Your task to perform on an android device: Go to settings Image 0: 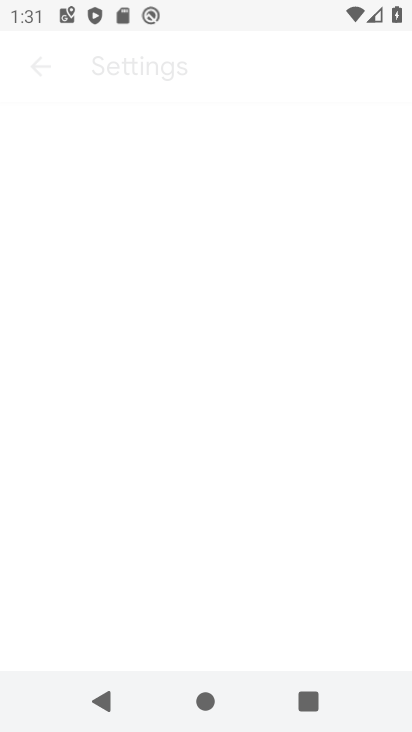
Step 0: drag from (167, 639) to (234, 212)
Your task to perform on an android device: Go to settings Image 1: 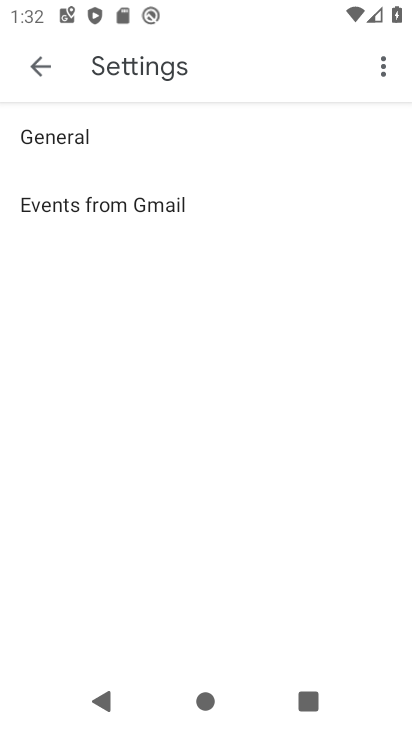
Step 1: press home button
Your task to perform on an android device: Go to settings Image 2: 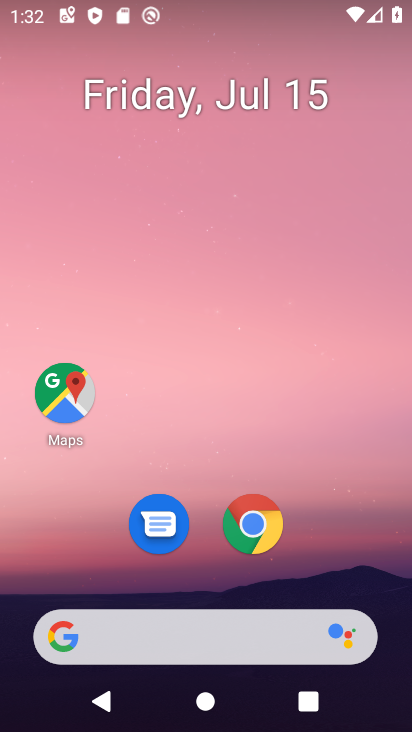
Step 2: drag from (256, 318) to (296, 139)
Your task to perform on an android device: Go to settings Image 3: 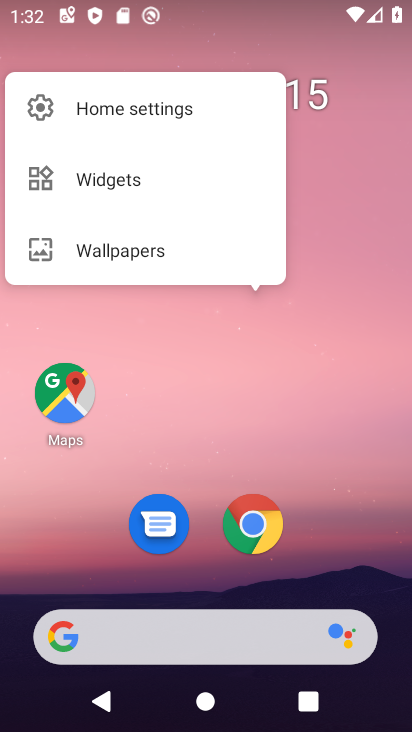
Step 3: drag from (241, 632) to (397, 63)
Your task to perform on an android device: Go to settings Image 4: 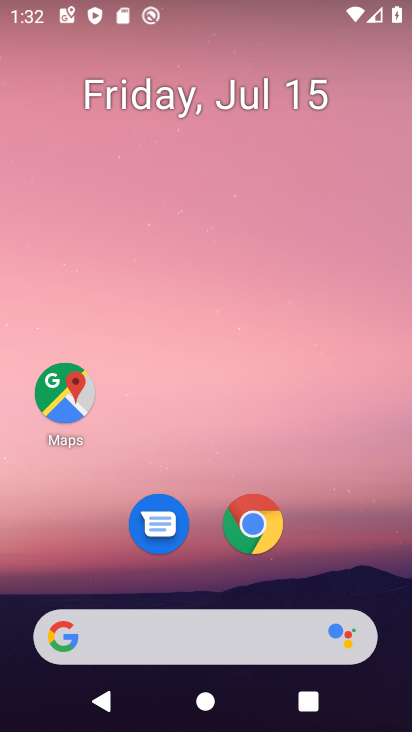
Step 4: drag from (193, 630) to (274, 146)
Your task to perform on an android device: Go to settings Image 5: 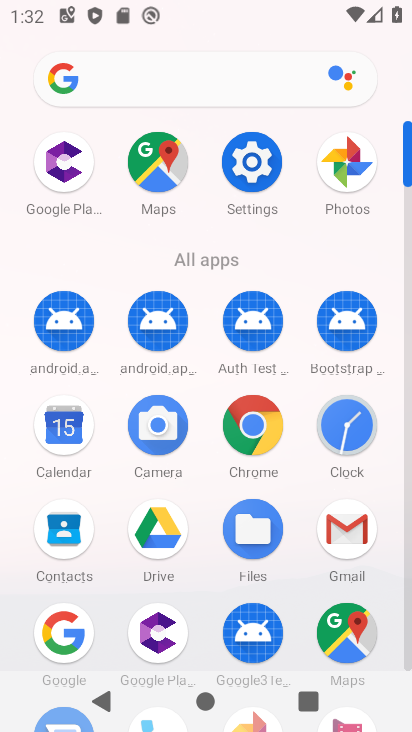
Step 5: click (259, 167)
Your task to perform on an android device: Go to settings Image 6: 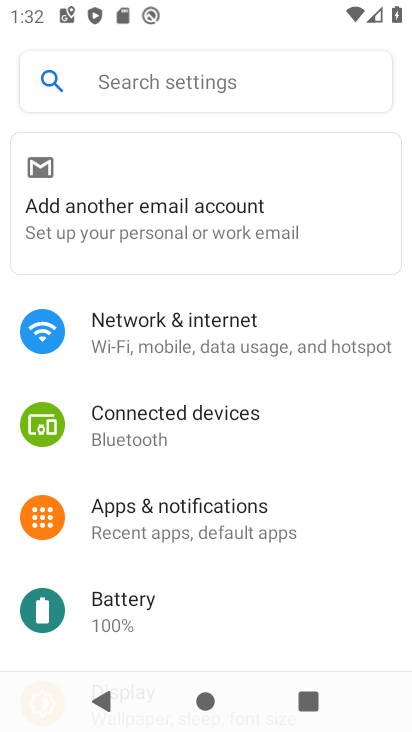
Step 6: task complete